Your task to perform on an android device: Google the capital of Brazil Image 0: 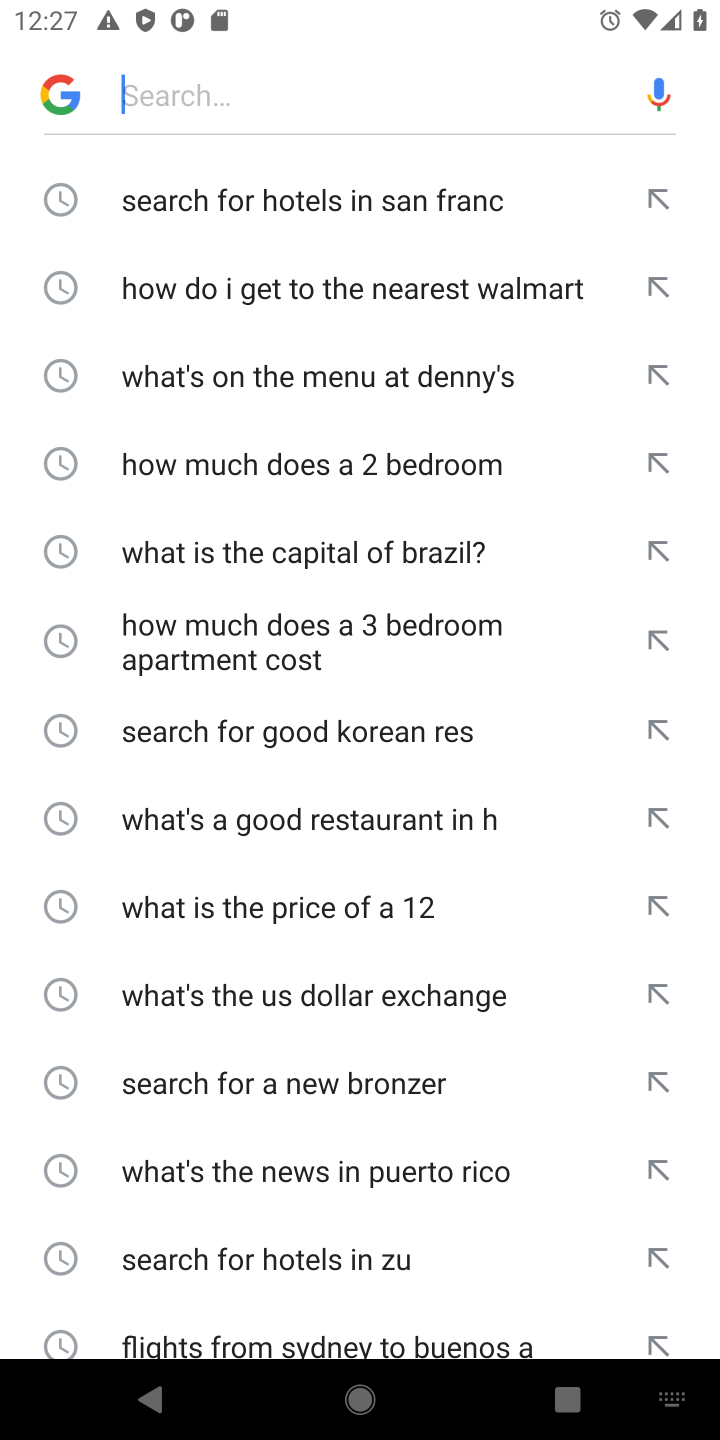
Step 0: type "Google the capital of Brazil"
Your task to perform on an android device: Google the capital of Brazil Image 1: 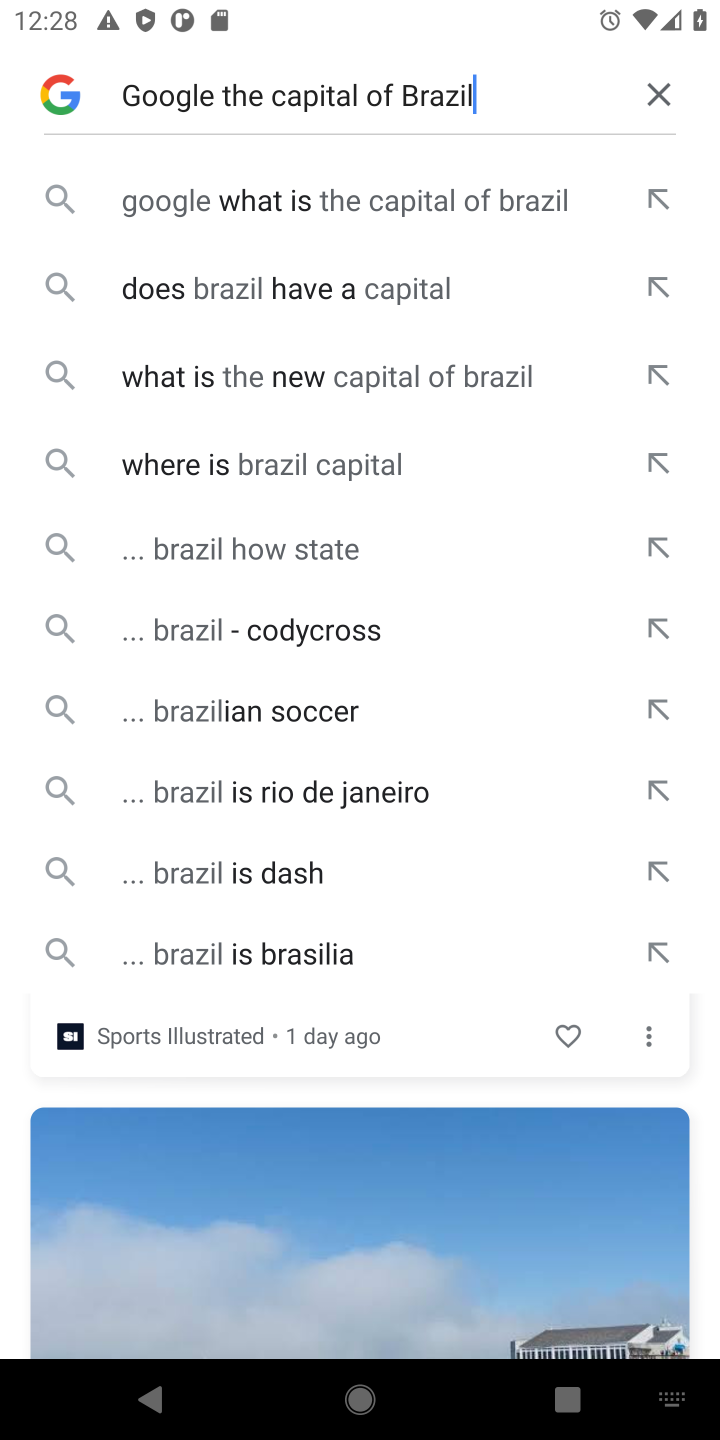
Step 1: click (472, 196)
Your task to perform on an android device: Google the capital of Brazil Image 2: 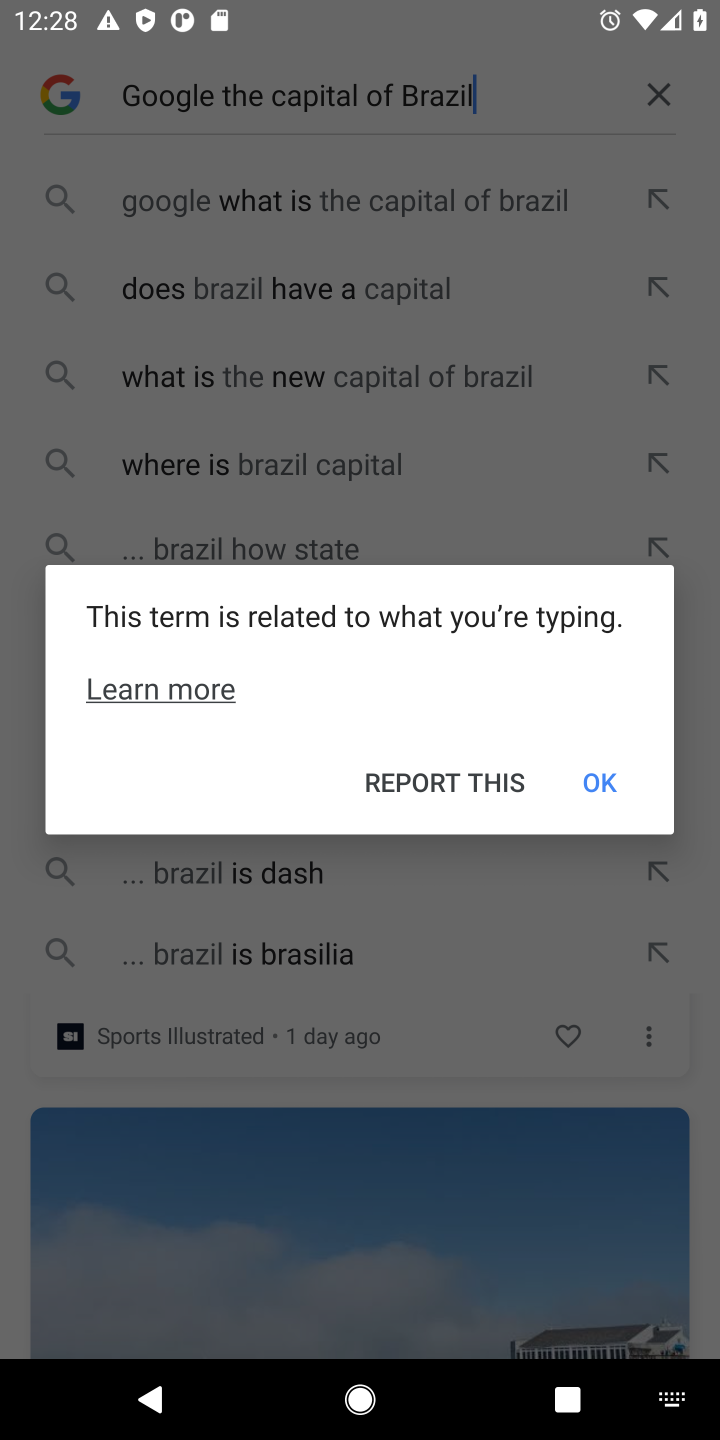
Step 2: click (593, 770)
Your task to perform on an android device: Google the capital of Brazil Image 3: 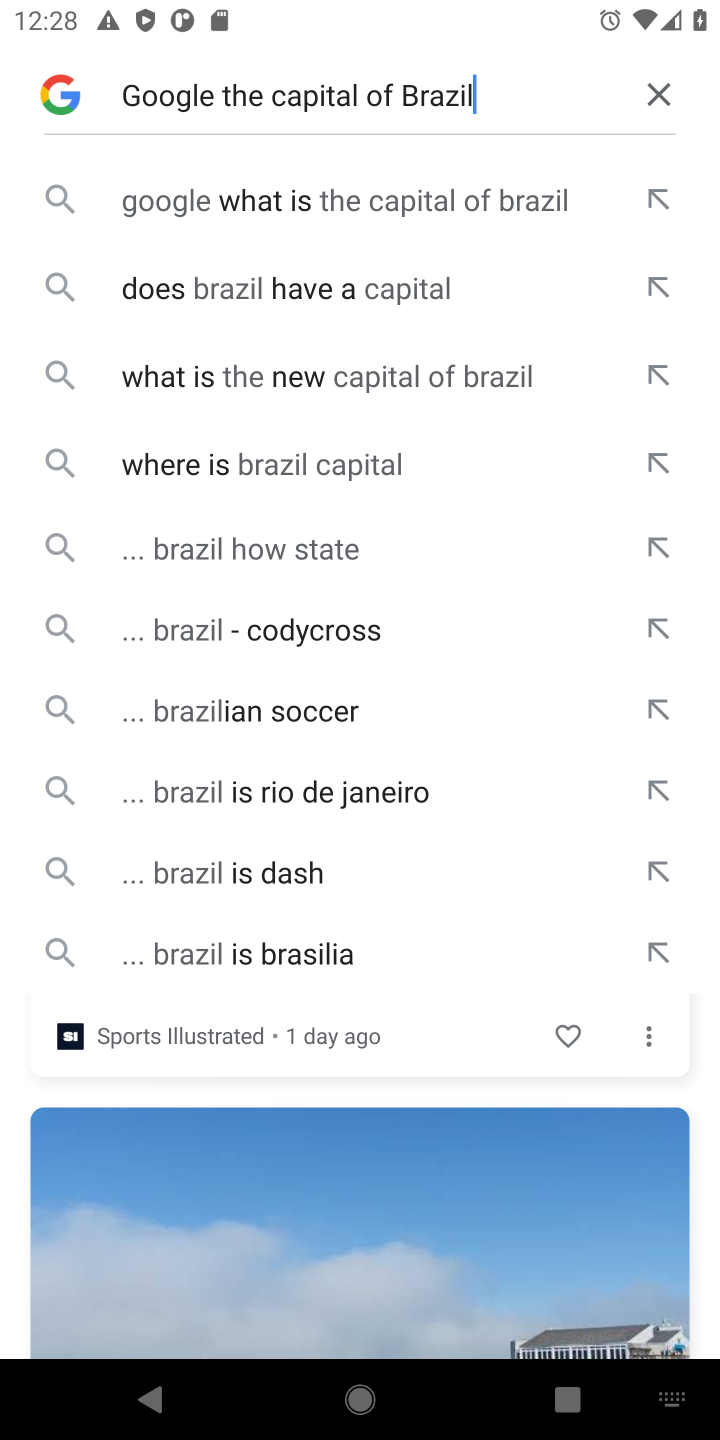
Step 3: click (470, 195)
Your task to perform on an android device: Google the capital of Brazil Image 4: 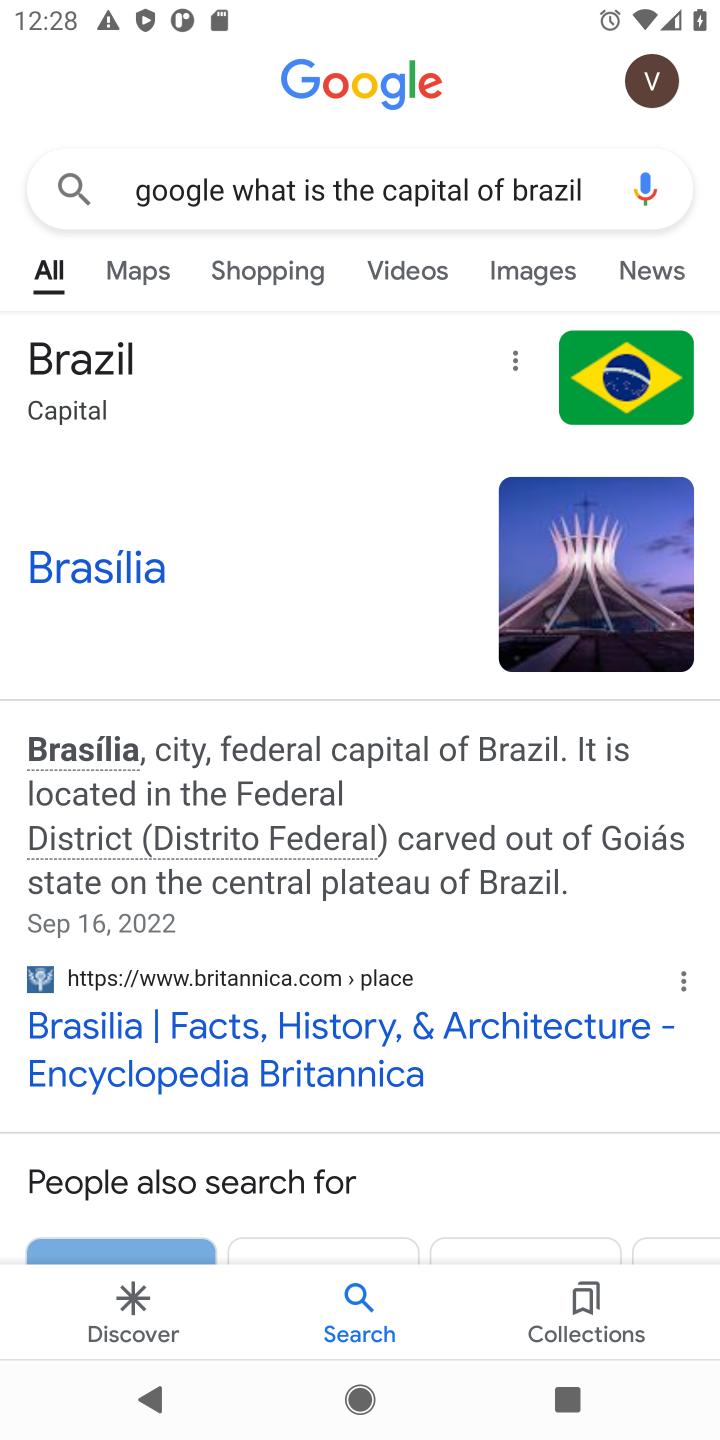
Step 4: task complete